Your task to perform on an android device: What's the weather today? Image 0: 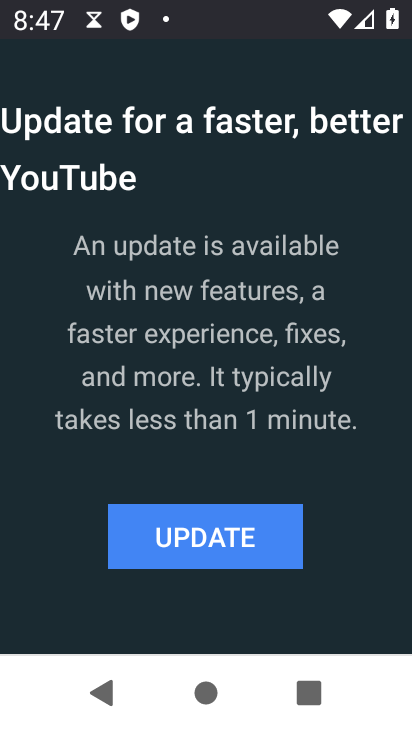
Step 0: press home button
Your task to perform on an android device: What's the weather today? Image 1: 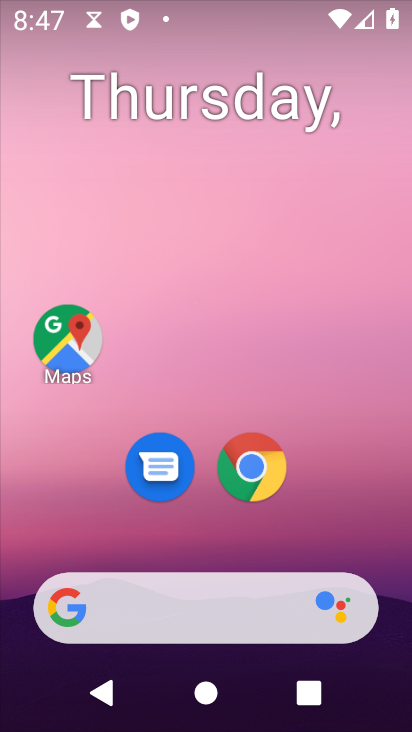
Step 1: drag from (349, 555) to (293, 7)
Your task to perform on an android device: What's the weather today? Image 2: 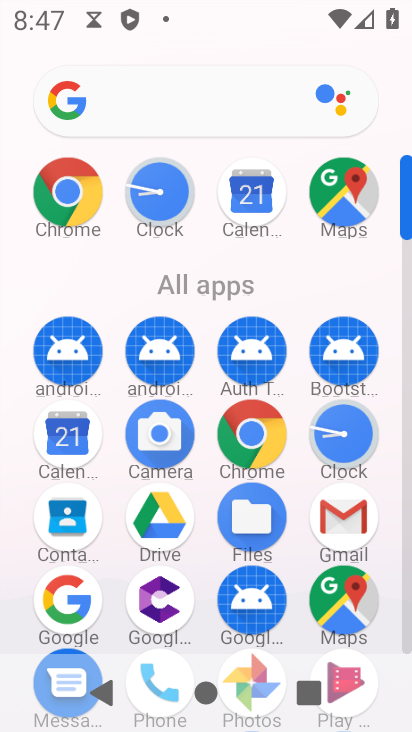
Step 2: click (159, 95)
Your task to perform on an android device: What's the weather today? Image 3: 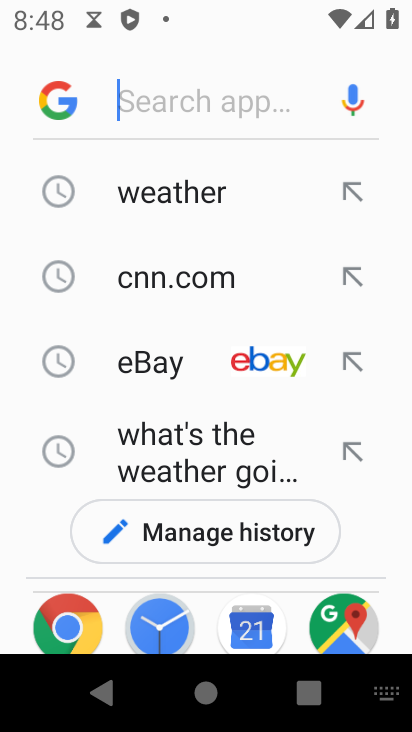
Step 3: type "what's the weather today"
Your task to perform on an android device: What's the weather today? Image 4: 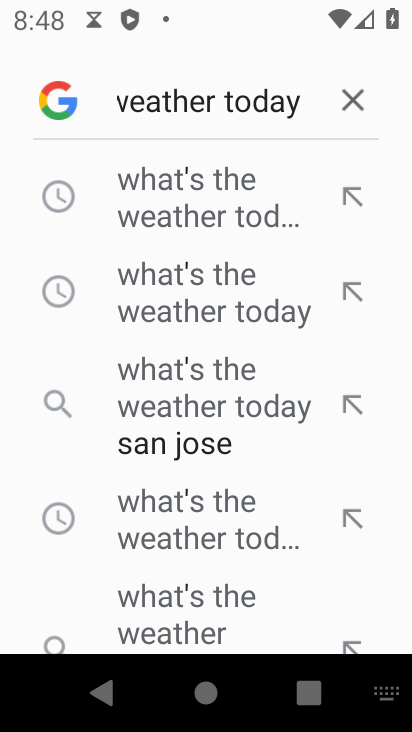
Step 4: click (171, 299)
Your task to perform on an android device: What's the weather today? Image 5: 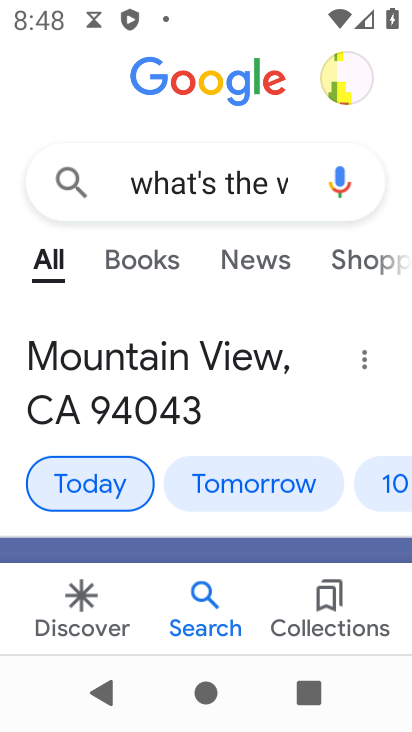
Step 5: task complete